Your task to perform on an android device: snooze an email in the gmail app Image 0: 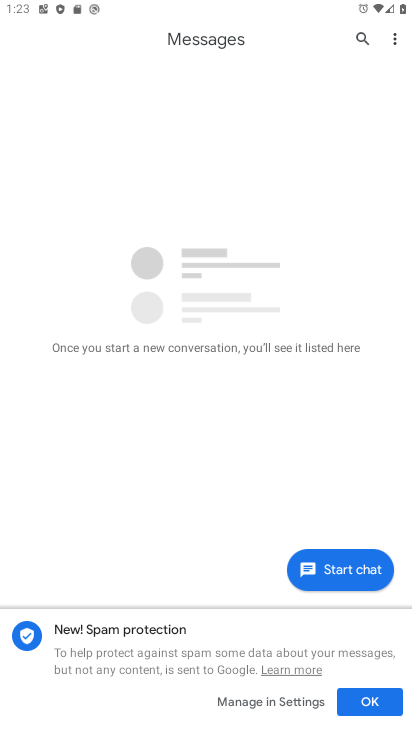
Step 0: press back button
Your task to perform on an android device: snooze an email in the gmail app Image 1: 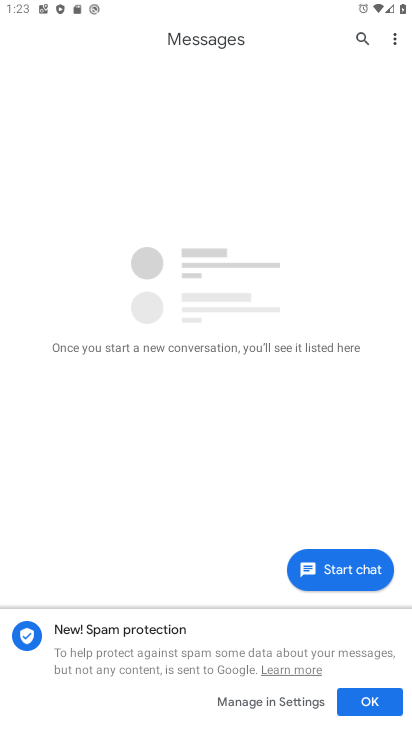
Step 1: press back button
Your task to perform on an android device: snooze an email in the gmail app Image 2: 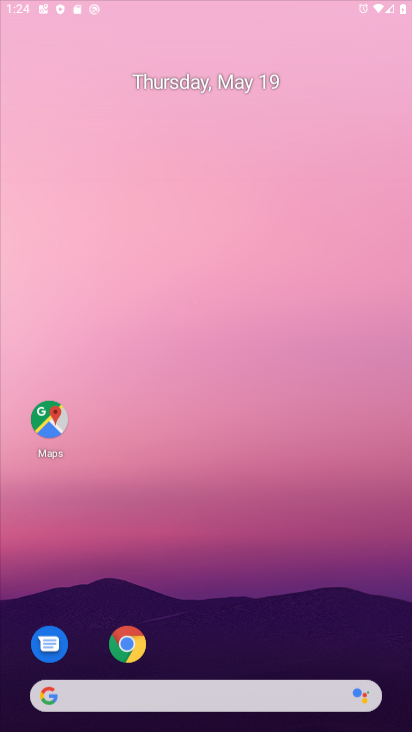
Step 2: press back button
Your task to perform on an android device: snooze an email in the gmail app Image 3: 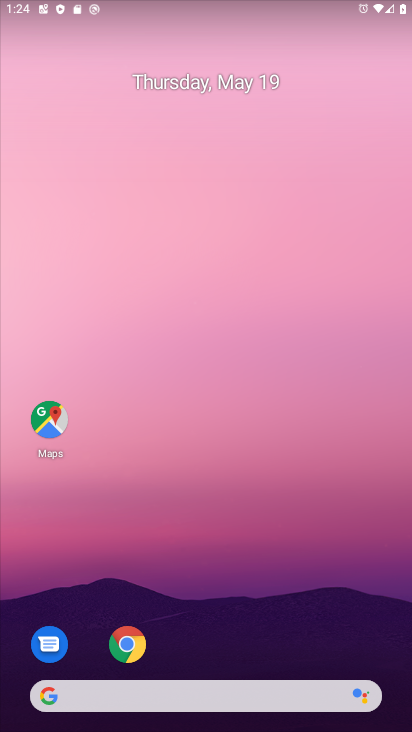
Step 3: drag from (270, 696) to (182, 61)
Your task to perform on an android device: snooze an email in the gmail app Image 4: 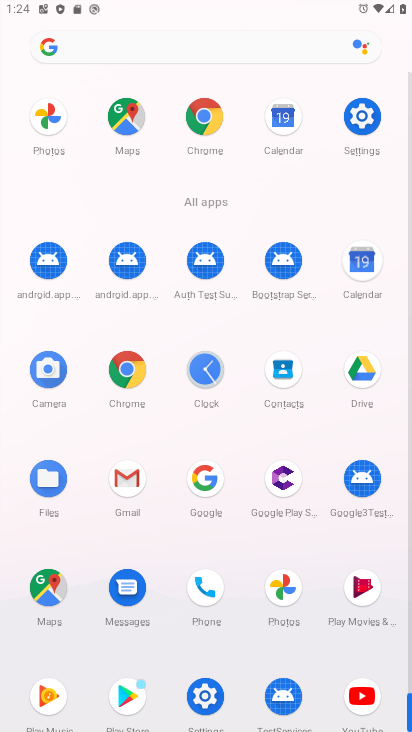
Step 4: click (135, 475)
Your task to perform on an android device: snooze an email in the gmail app Image 5: 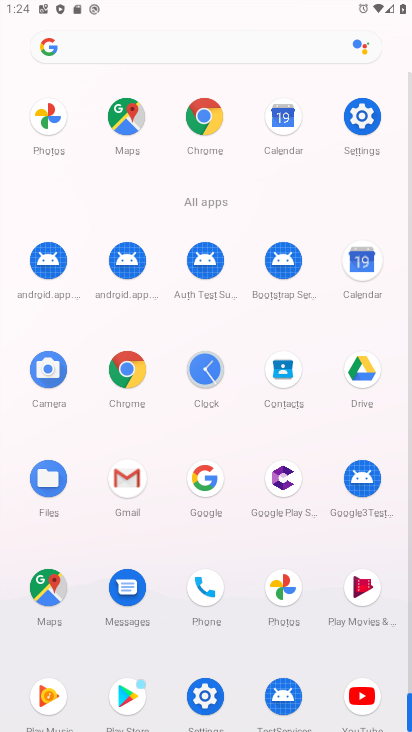
Step 5: click (135, 475)
Your task to perform on an android device: snooze an email in the gmail app Image 6: 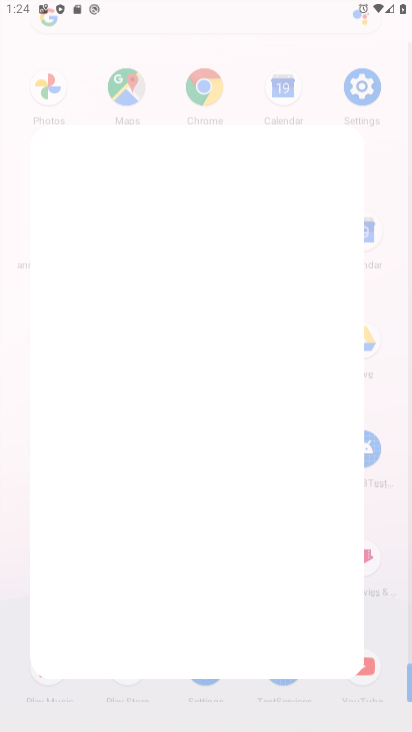
Step 6: click (135, 475)
Your task to perform on an android device: snooze an email in the gmail app Image 7: 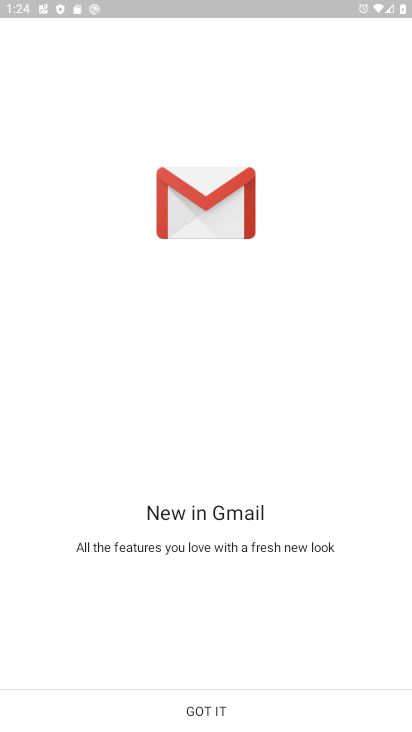
Step 7: click (221, 705)
Your task to perform on an android device: snooze an email in the gmail app Image 8: 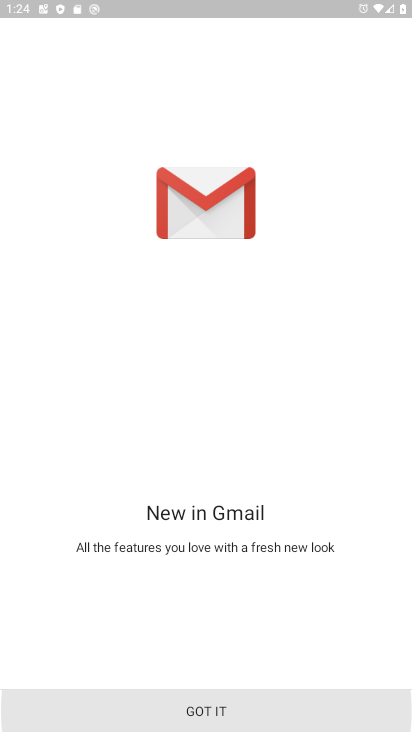
Step 8: click (211, 714)
Your task to perform on an android device: snooze an email in the gmail app Image 9: 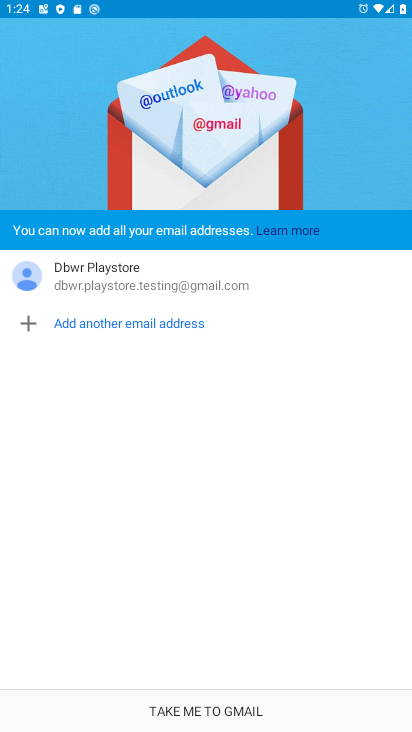
Step 9: click (212, 712)
Your task to perform on an android device: snooze an email in the gmail app Image 10: 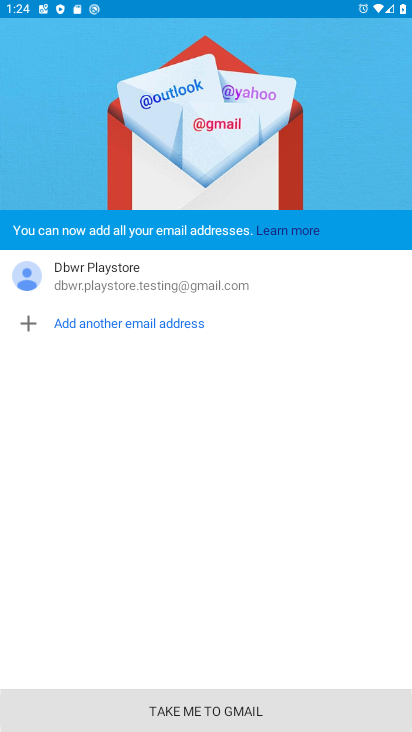
Step 10: click (212, 712)
Your task to perform on an android device: snooze an email in the gmail app Image 11: 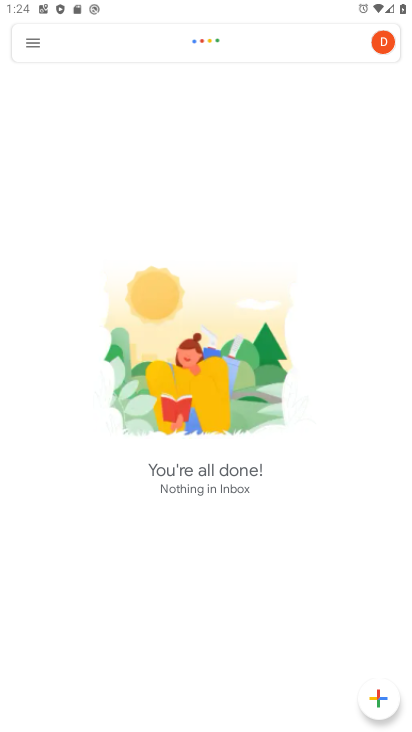
Step 11: click (24, 37)
Your task to perform on an android device: snooze an email in the gmail app Image 12: 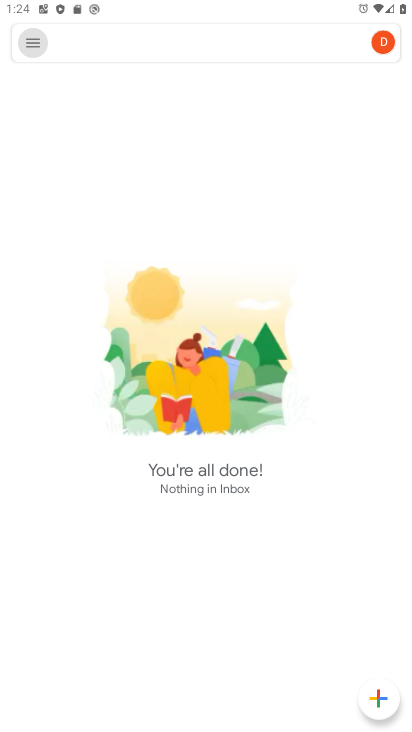
Step 12: click (30, 43)
Your task to perform on an android device: snooze an email in the gmail app Image 13: 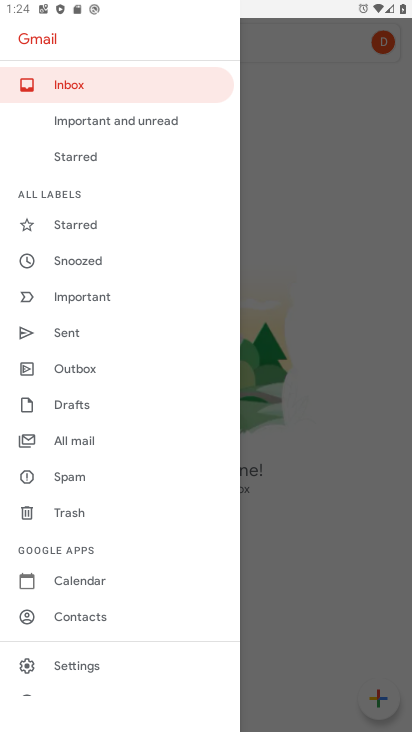
Step 13: click (77, 439)
Your task to perform on an android device: snooze an email in the gmail app Image 14: 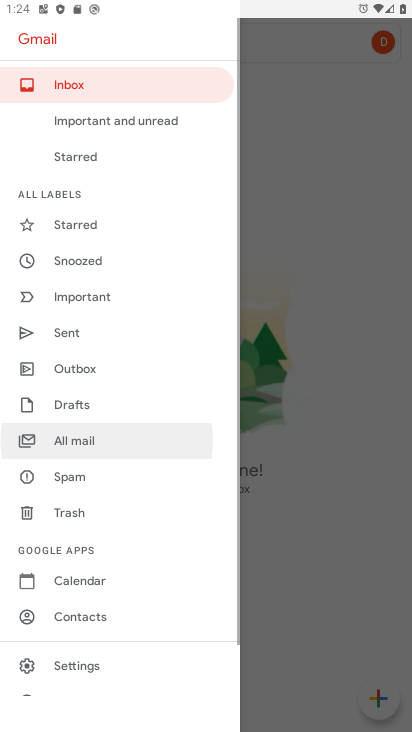
Step 14: click (76, 440)
Your task to perform on an android device: snooze an email in the gmail app Image 15: 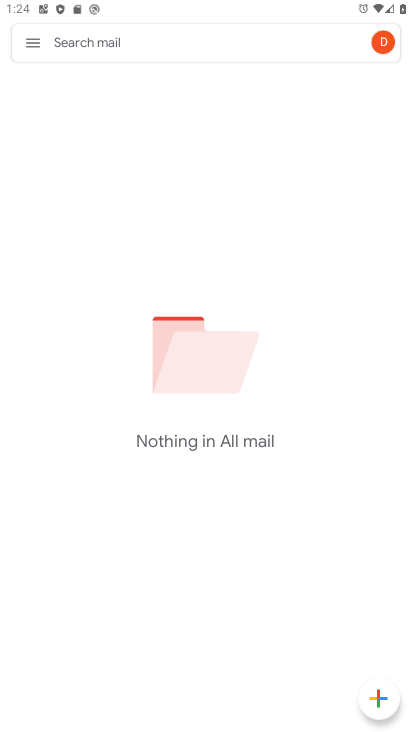
Step 15: task complete